Your task to perform on an android device: See recent photos Image 0: 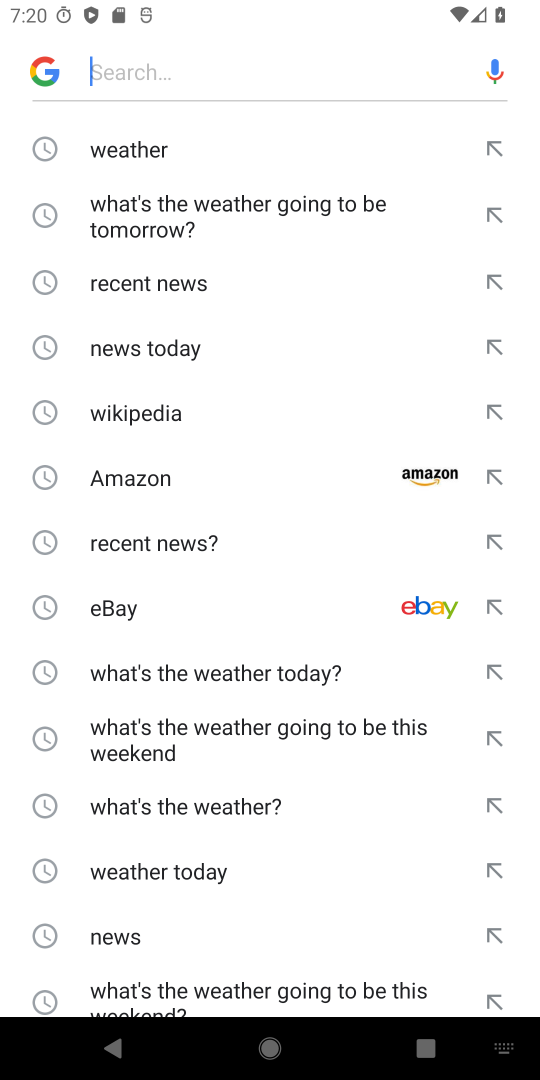
Step 0: press home button
Your task to perform on an android device: See recent photos Image 1: 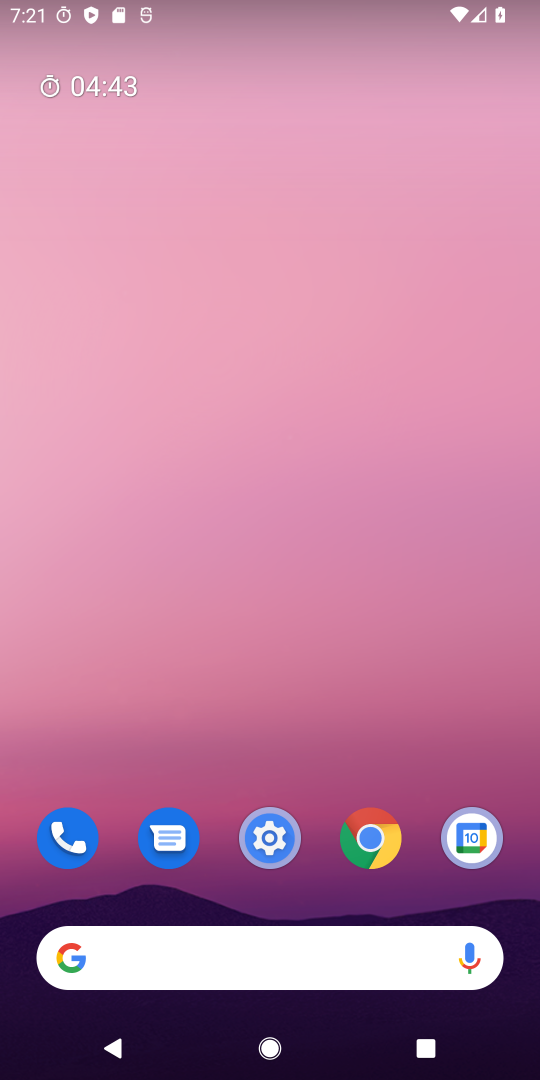
Step 1: drag from (226, 808) to (346, 197)
Your task to perform on an android device: See recent photos Image 2: 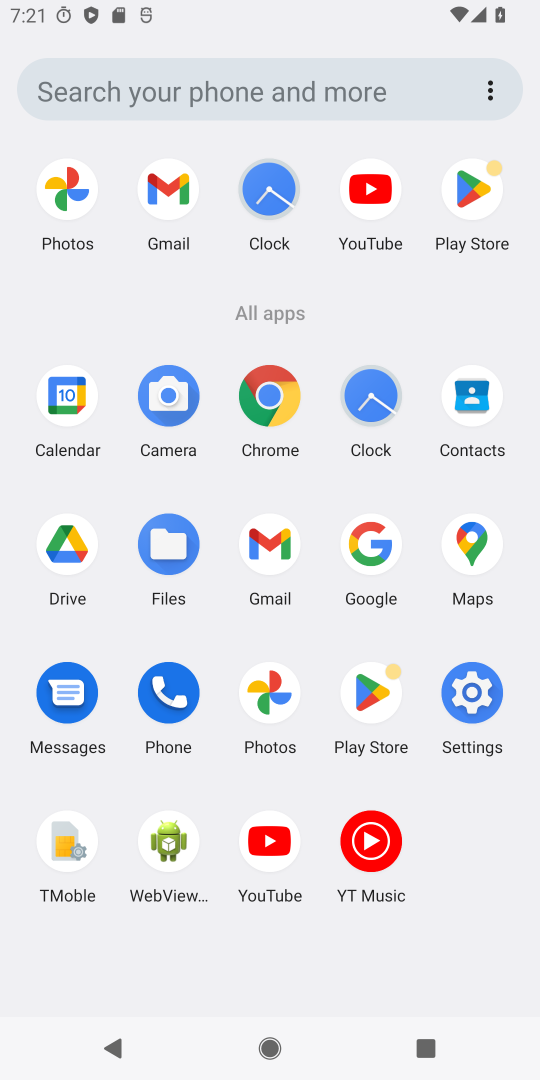
Step 2: click (267, 692)
Your task to perform on an android device: See recent photos Image 3: 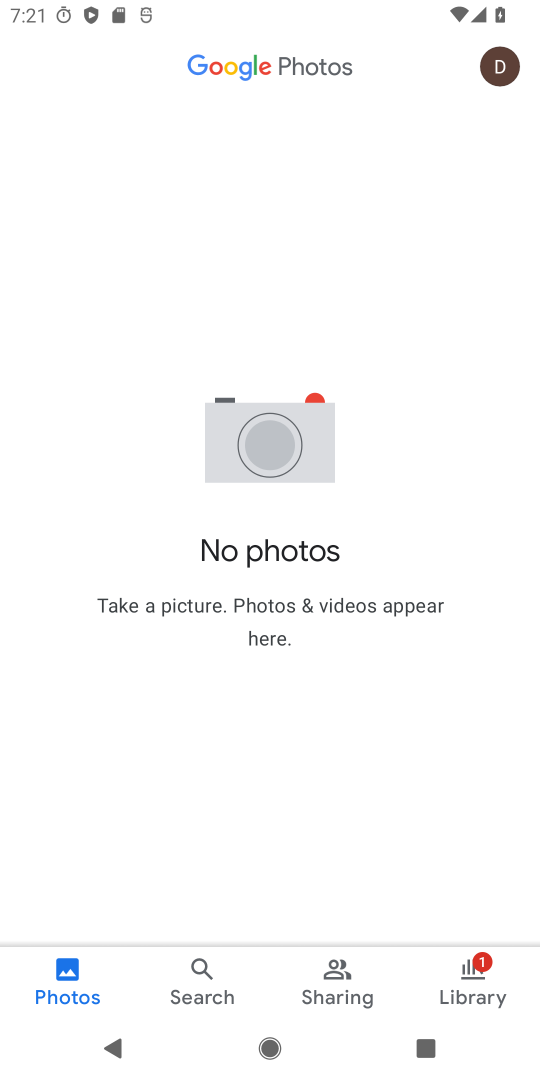
Step 3: click (46, 977)
Your task to perform on an android device: See recent photos Image 4: 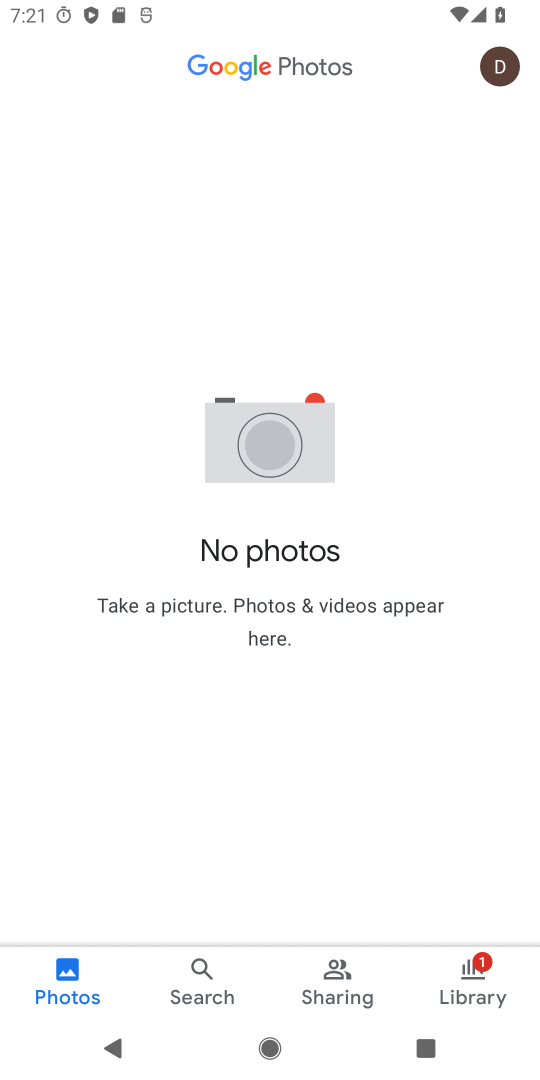
Step 4: task complete